Your task to perform on an android device: Open the Play Movies app and select the watchlist tab. Image 0: 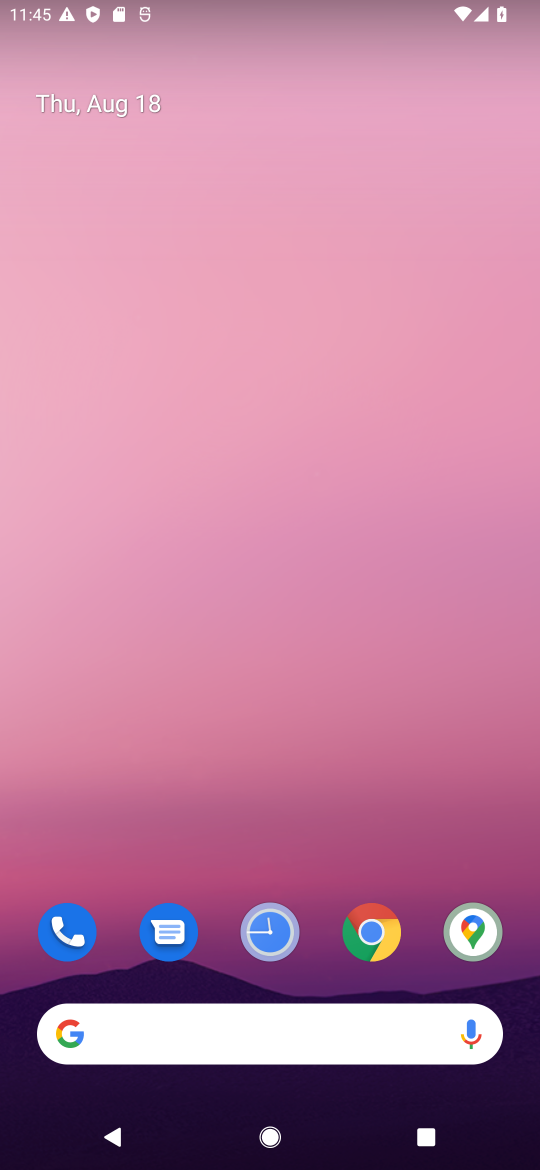
Step 0: drag from (310, 995) to (212, 308)
Your task to perform on an android device: Open the Play Movies app and select the watchlist tab. Image 1: 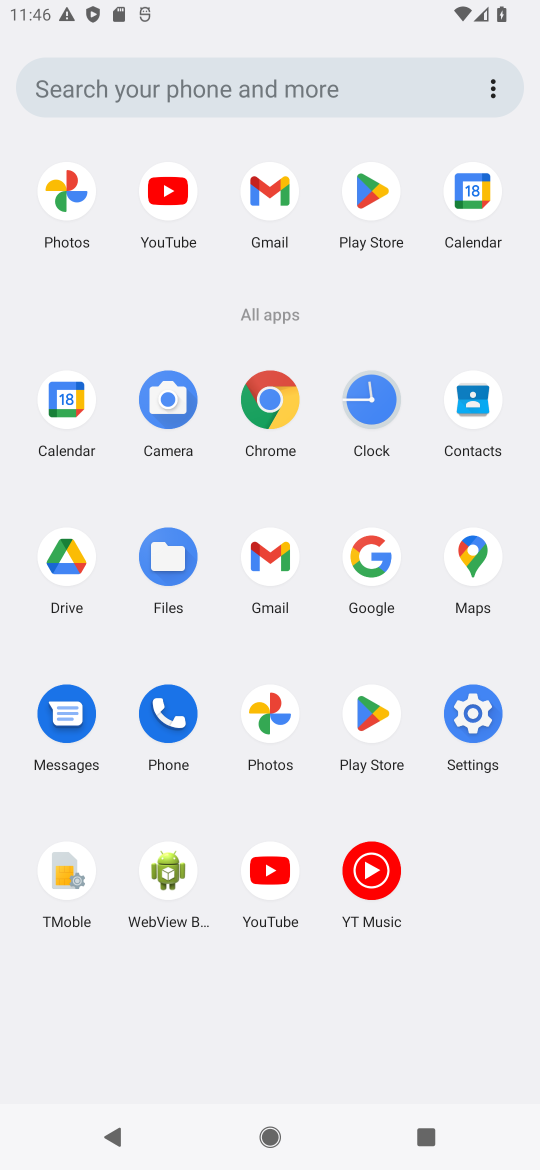
Step 1: task complete